Your task to perform on an android device: change alarm snooze length Image 0: 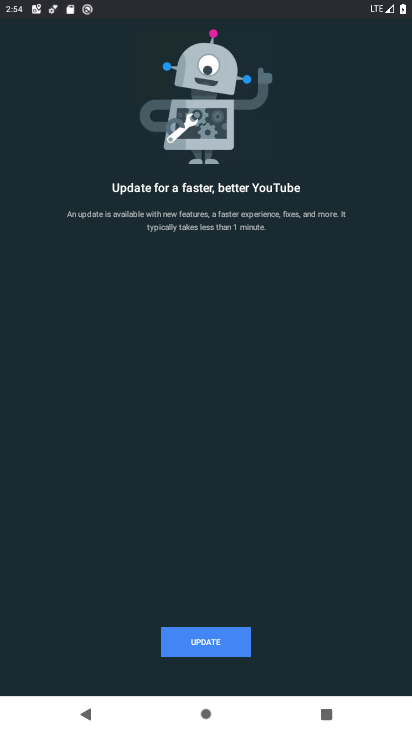
Step 0: press home button
Your task to perform on an android device: change alarm snooze length Image 1: 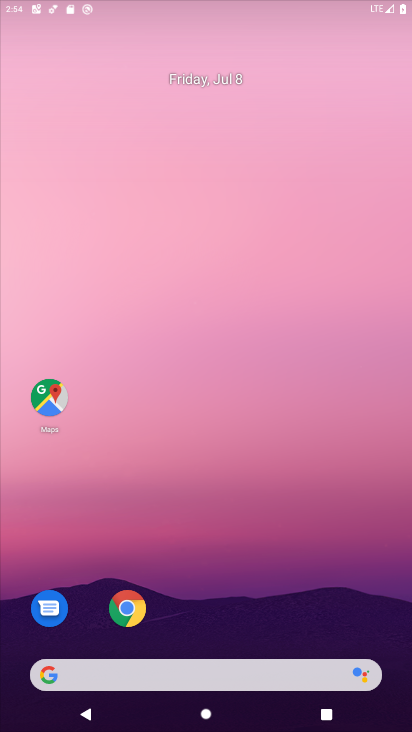
Step 1: drag from (216, 625) to (190, 198)
Your task to perform on an android device: change alarm snooze length Image 2: 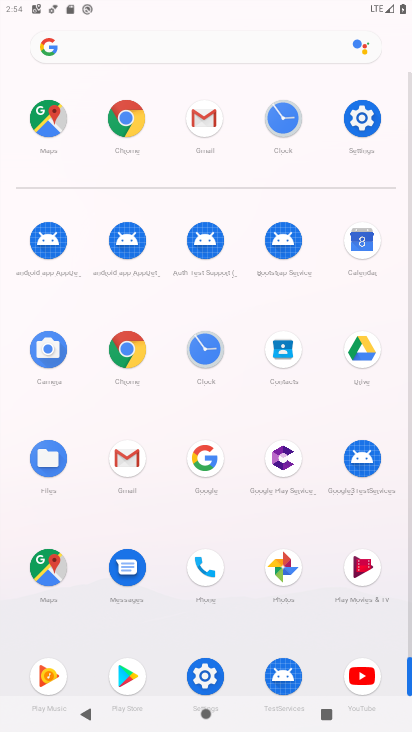
Step 2: click (284, 108)
Your task to perform on an android device: change alarm snooze length Image 3: 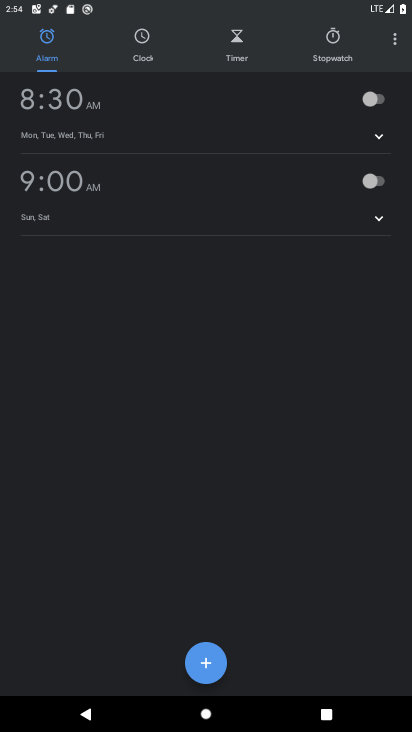
Step 3: click (387, 42)
Your task to perform on an android device: change alarm snooze length Image 4: 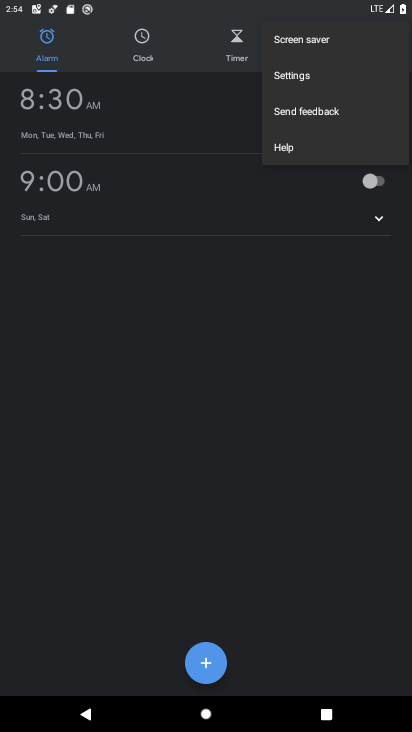
Step 4: click (309, 74)
Your task to perform on an android device: change alarm snooze length Image 5: 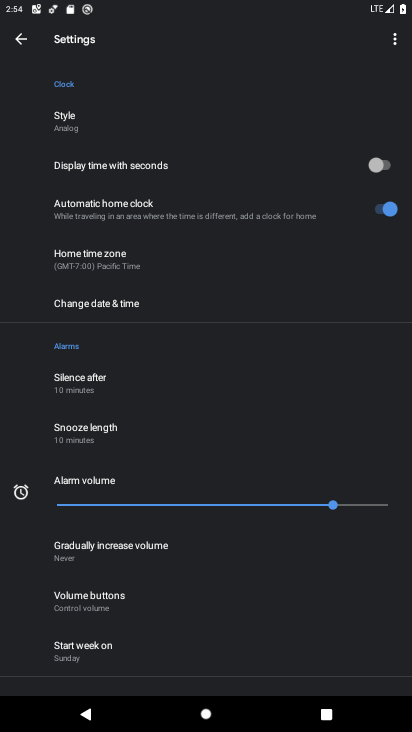
Step 5: click (126, 449)
Your task to perform on an android device: change alarm snooze length Image 6: 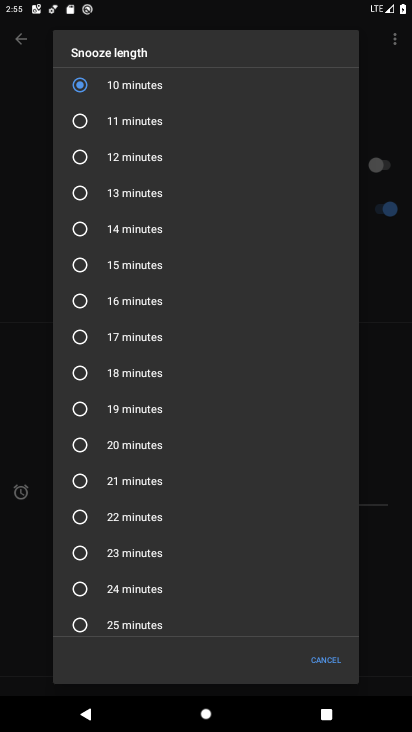
Step 6: click (129, 422)
Your task to perform on an android device: change alarm snooze length Image 7: 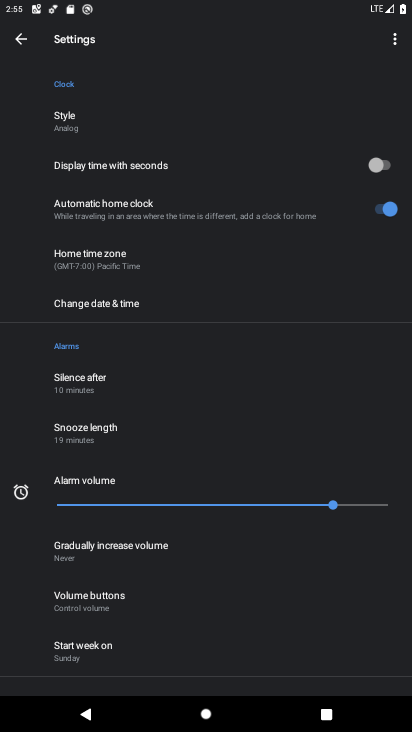
Step 7: task complete